Your task to perform on an android device: Turn on the flashlight Image 0: 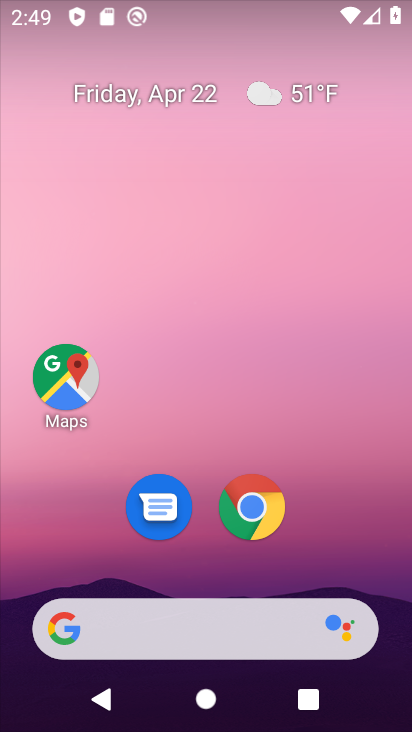
Step 0: drag from (213, 537) to (266, 41)
Your task to perform on an android device: Turn on the flashlight Image 1: 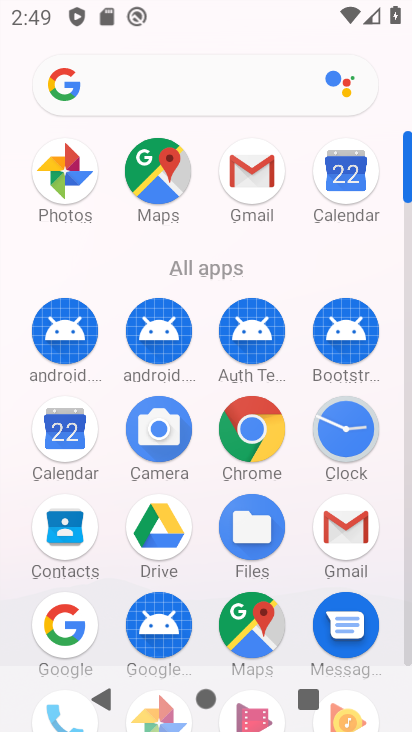
Step 1: drag from (189, 636) to (293, 51)
Your task to perform on an android device: Turn on the flashlight Image 2: 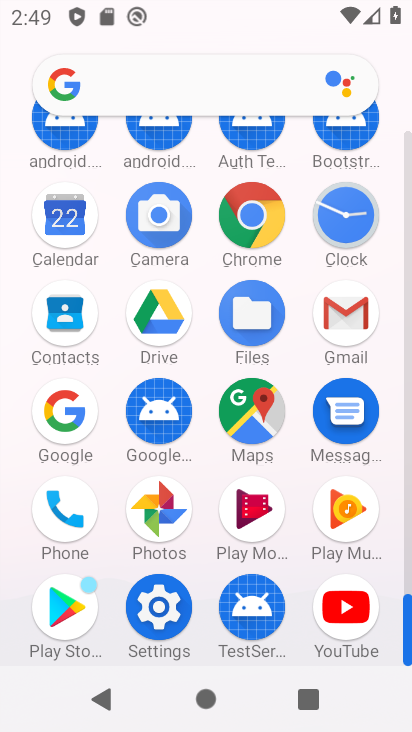
Step 2: click (166, 616)
Your task to perform on an android device: Turn on the flashlight Image 3: 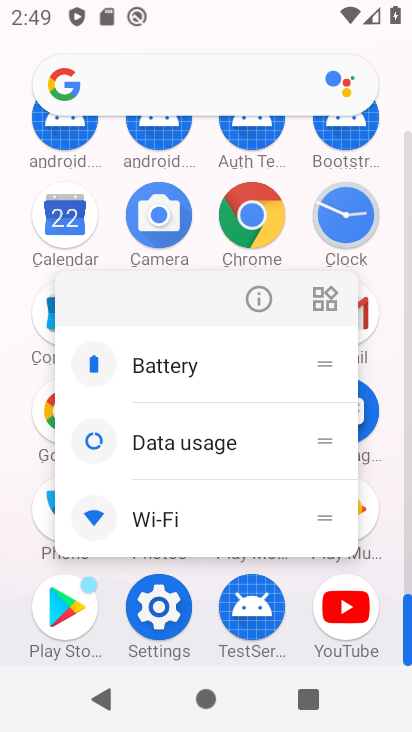
Step 3: click (177, 608)
Your task to perform on an android device: Turn on the flashlight Image 4: 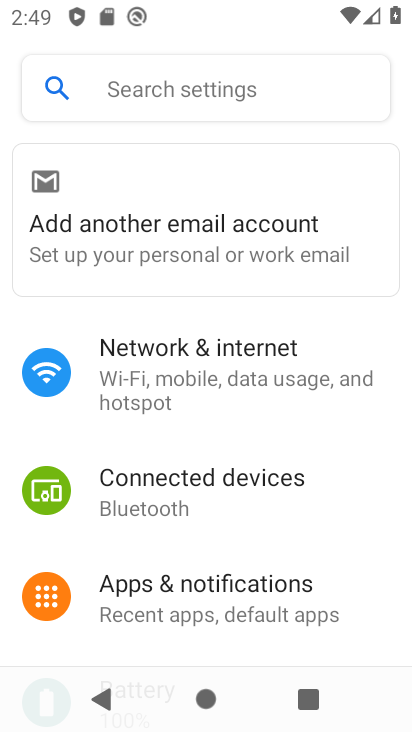
Step 4: click (155, 89)
Your task to perform on an android device: Turn on the flashlight Image 5: 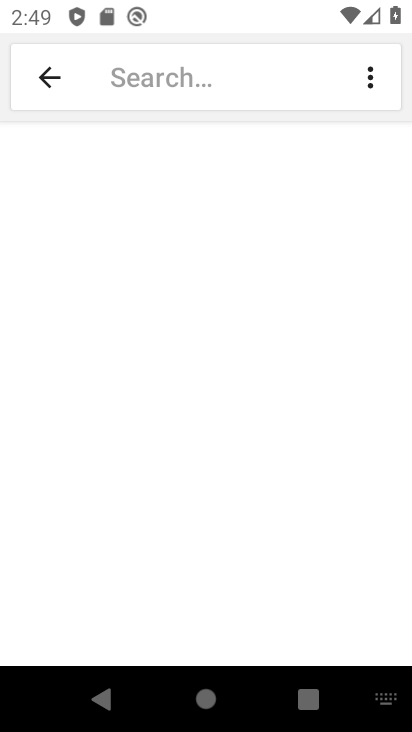
Step 5: type "flashlight"
Your task to perform on an android device: Turn on the flashlight Image 6: 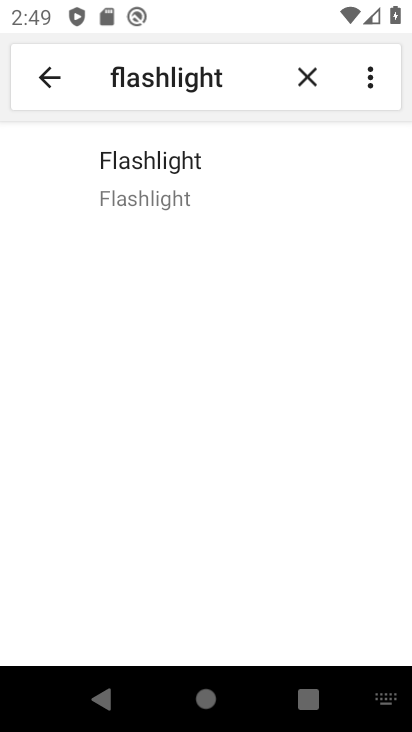
Step 6: task complete